Your task to perform on an android device: move an email to a new category in the gmail app Image 0: 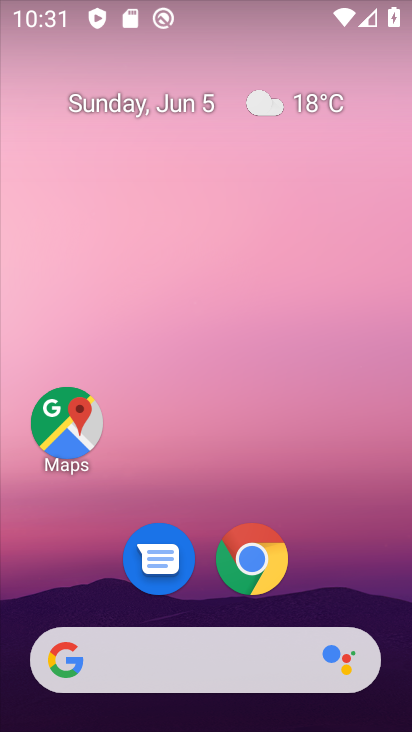
Step 0: drag from (326, 589) to (286, 82)
Your task to perform on an android device: move an email to a new category in the gmail app Image 1: 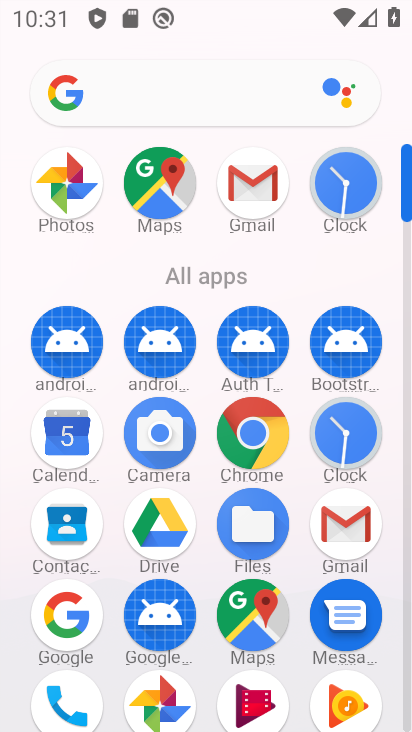
Step 1: click (261, 210)
Your task to perform on an android device: move an email to a new category in the gmail app Image 2: 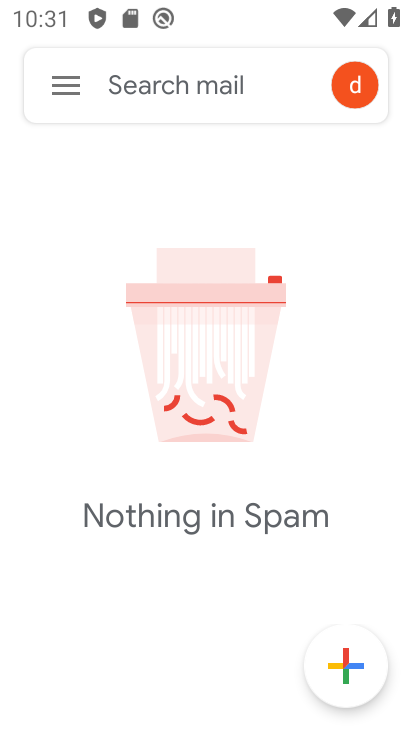
Step 2: click (62, 103)
Your task to perform on an android device: move an email to a new category in the gmail app Image 3: 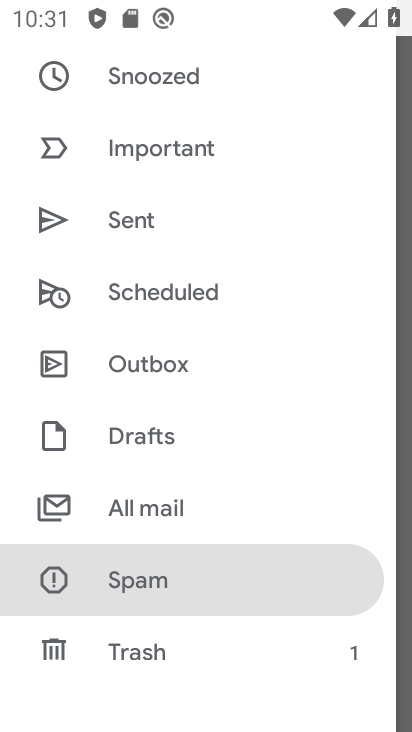
Step 3: click (152, 512)
Your task to perform on an android device: move an email to a new category in the gmail app Image 4: 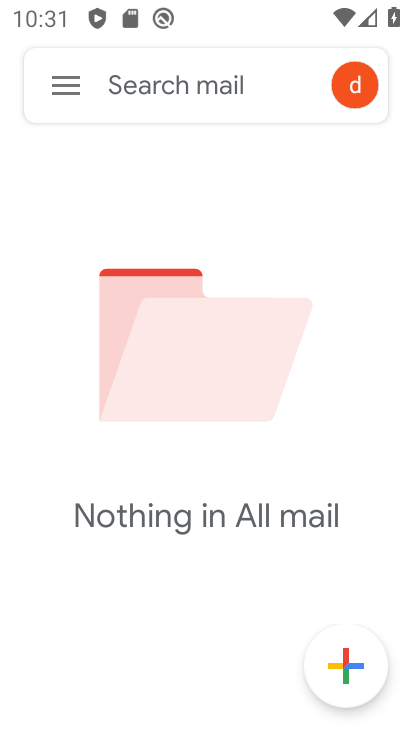
Step 4: task complete